Your task to perform on an android device: Turn off the flashlight Image 0: 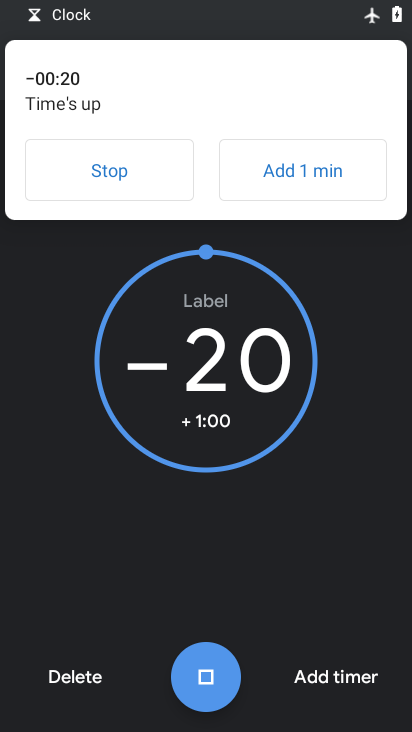
Step 0: press home button
Your task to perform on an android device: Turn off the flashlight Image 1: 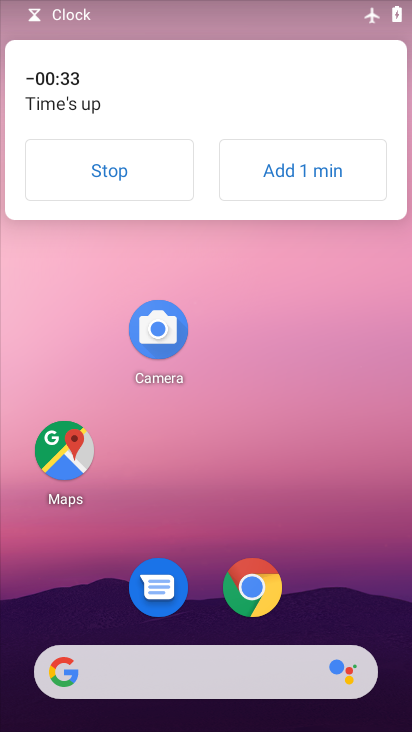
Step 1: drag from (203, 617) to (195, 211)
Your task to perform on an android device: Turn off the flashlight Image 2: 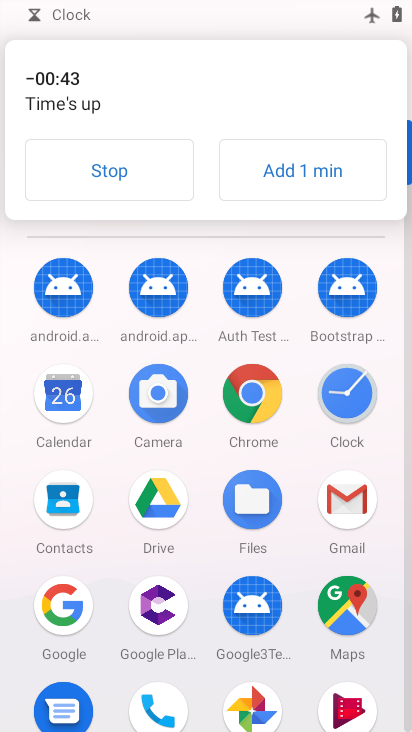
Step 2: drag from (222, 559) to (227, 274)
Your task to perform on an android device: Turn off the flashlight Image 3: 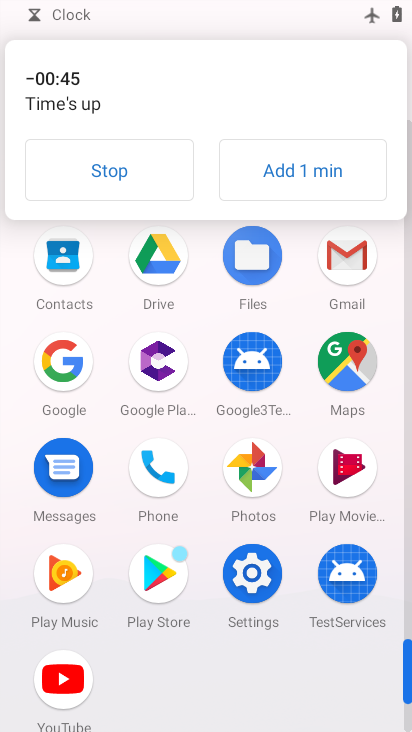
Step 3: click (263, 575)
Your task to perform on an android device: Turn off the flashlight Image 4: 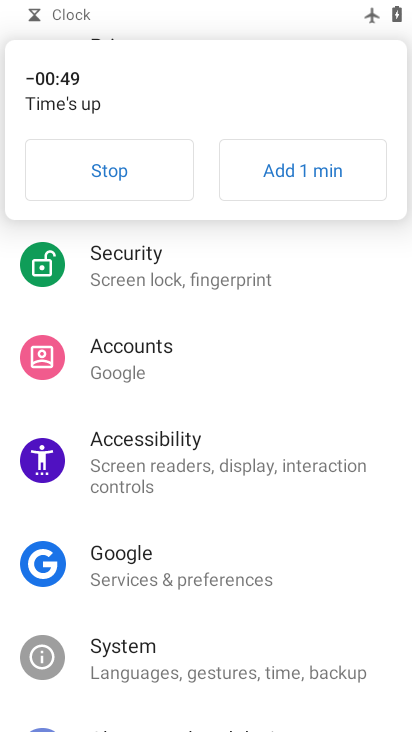
Step 4: task complete